Your task to perform on an android device: toggle notification dots Image 0: 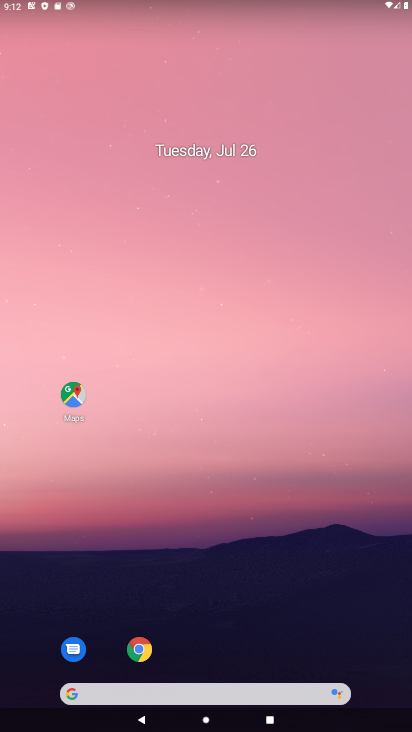
Step 0: drag from (191, 579) to (287, 75)
Your task to perform on an android device: toggle notification dots Image 1: 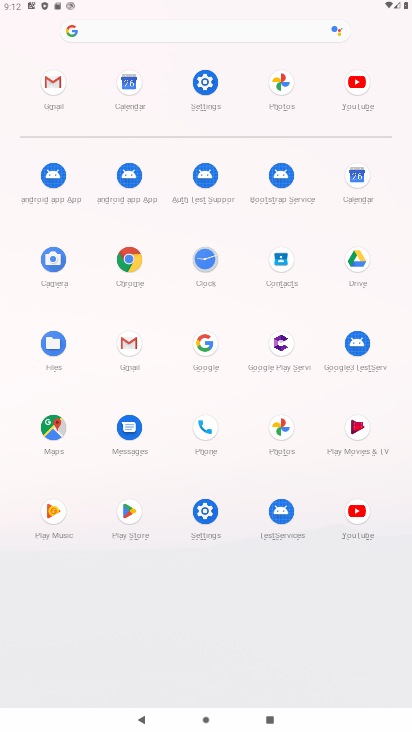
Step 1: click (222, 514)
Your task to perform on an android device: toggle notification dots Image 2: 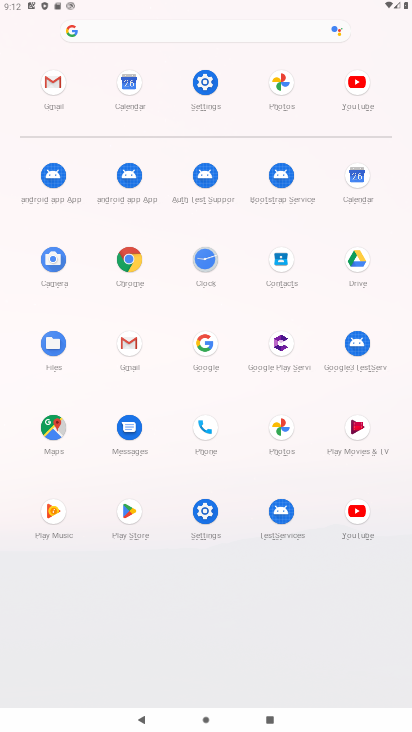
Step 2: click (209, 514)
Your task to perform on an android device: toggle notification dots Image 3: 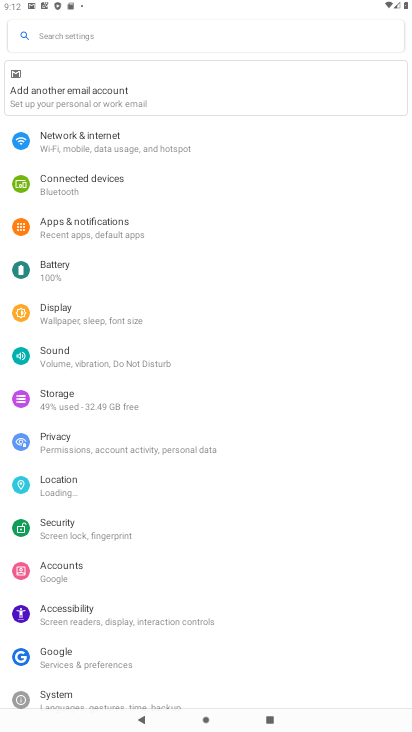
Step 3: click (117, 221)
Your task to perform on an android device: toggle notification dots Image 4: 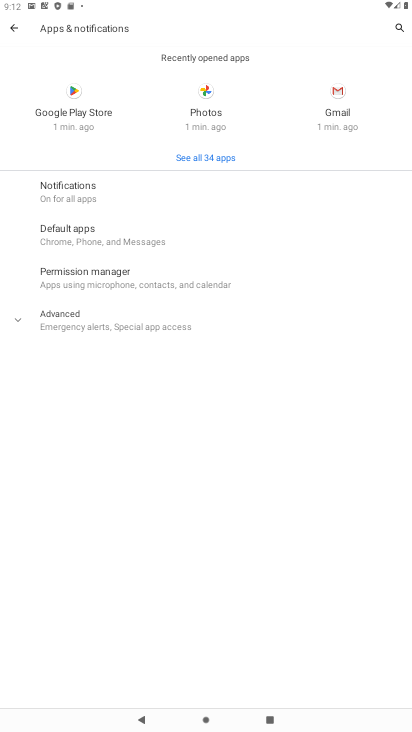
Step 4: click (159, 201)
Your task to perform on an android device: toggle notification dots Image 5: 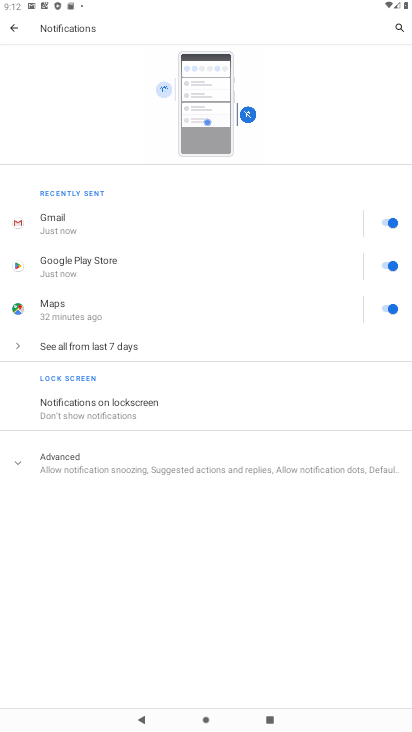
Step 5: drag from (199, 499) to (285, 181)
Your task to perform on an android device: toggle notification dots Image 6: 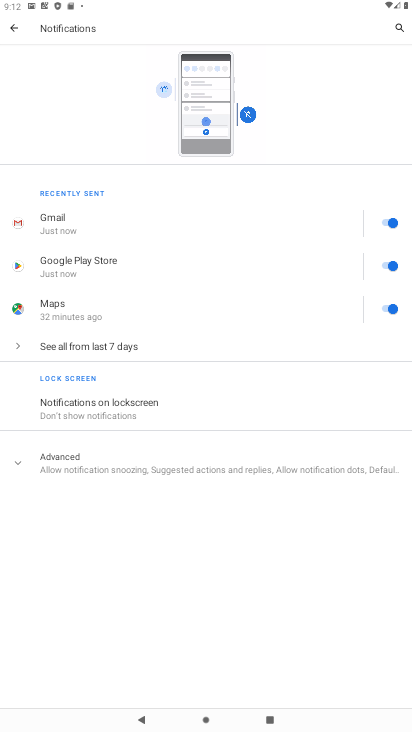
Step 6: click (152, 462)
Your task to perform on an android device: toggle notification dots Image 7: 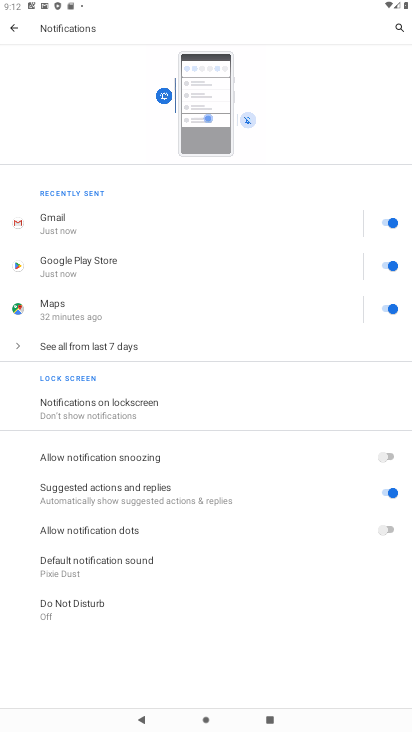
Step 7: click (378, 536)
Your task to perform on an android device: toggle notification dots Image 8: 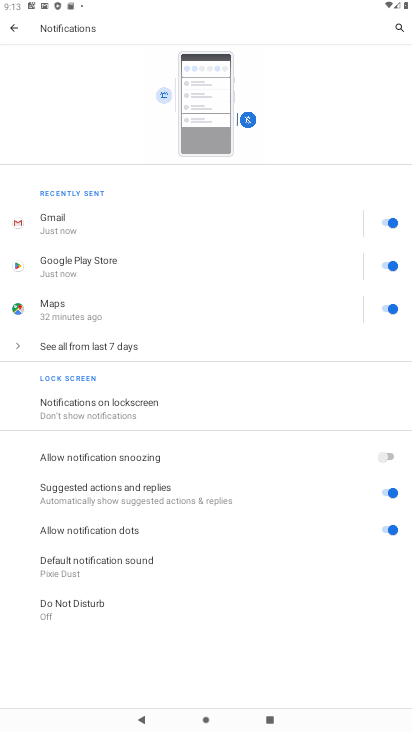
Step 8: task complete